Your task to perform on an android device: turn notification dots off Image 0: 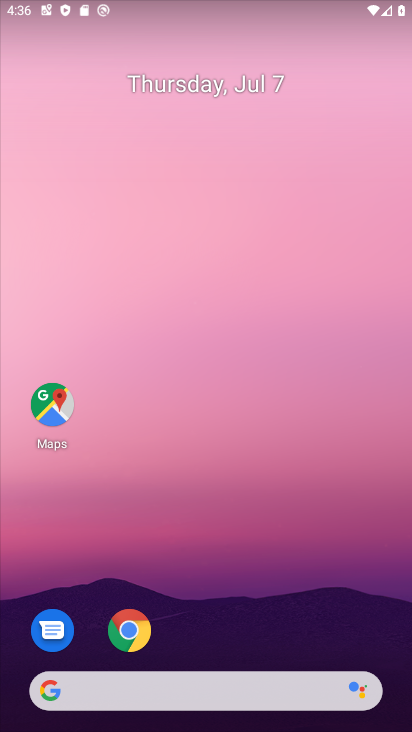
Step 0: drag from (188, 12) to (181, 562)
Your task to perform on an android device: turn notification dots off Image 1: 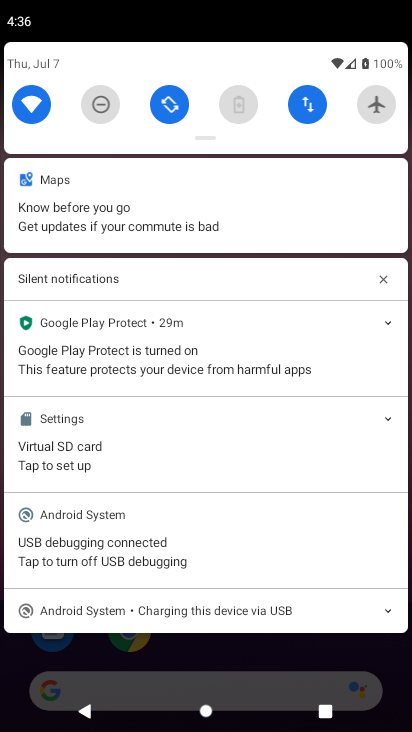
Step 1: drag from (212, 59) to (262, 602)
Your task to perform on an android device: turn notification dots off Image 2: 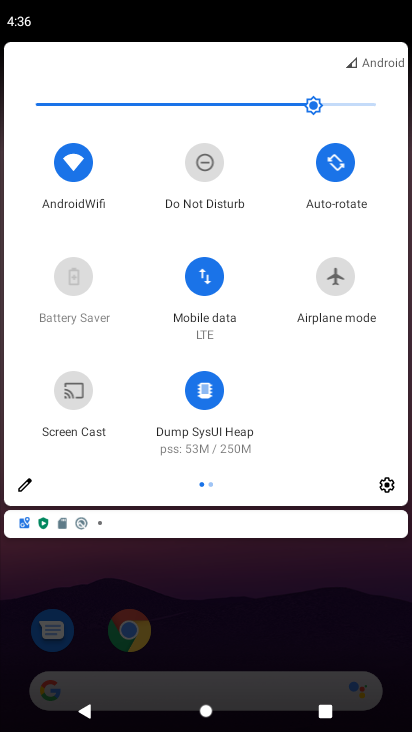
Step 2: click (397, 481)
Your task to perform on an android device: turn notification dots off Image 3: 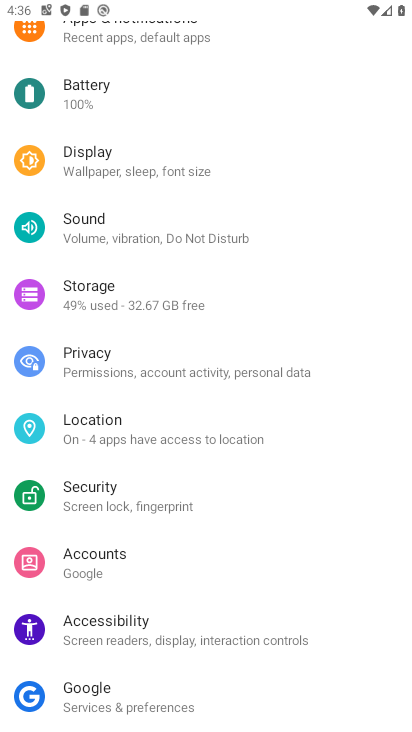
Step 3: drag from (236, 151) to (239, 534)
Your task to perform on an android device: turn notification dots off Image 4: 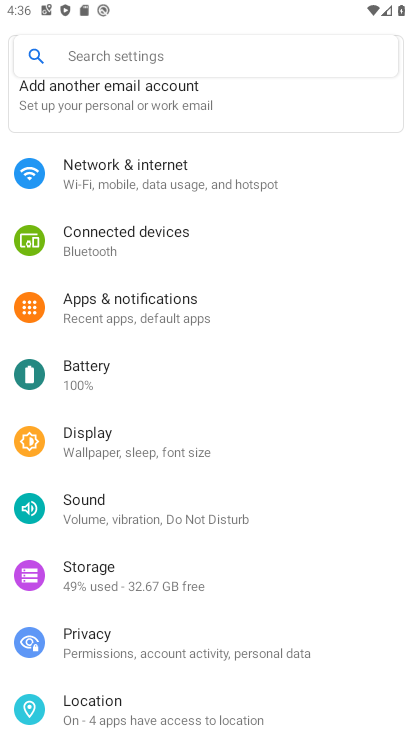
Step 4: click (170, 303)
Your task to perform on an android device: turn notification dots off Image 5: 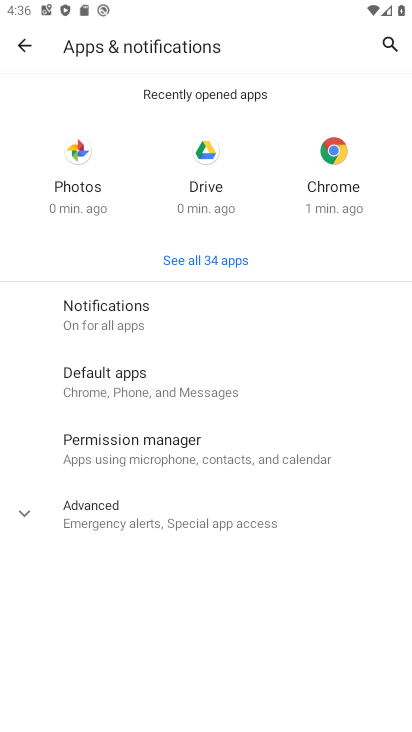
Step 5: click (146, 310)
Your task to perform on an android device: turn notification dots off Image 6: 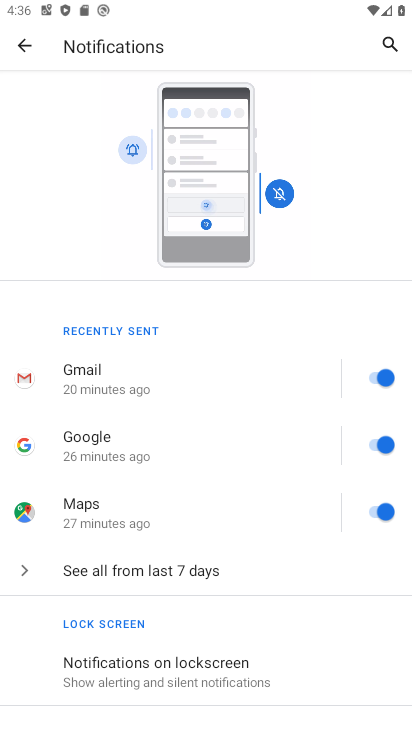
Step 6: drag from (257, 663) to (305, 170)
Your task to perform on an android device: turn notification dots off Image 7: 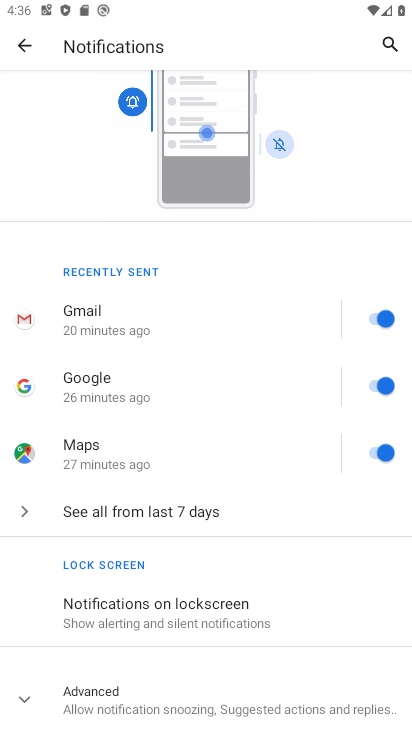
Step 7: click (123, 702)
Your task to perform on an android device: turn notification dots off Image 8: 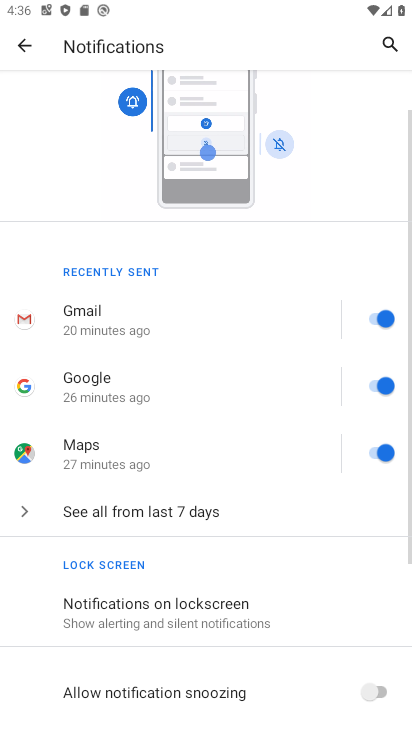
Step 8: drag from (188, 591) to (205, 240)
Your task to perform on an android device: turn notification dots off Image 9: 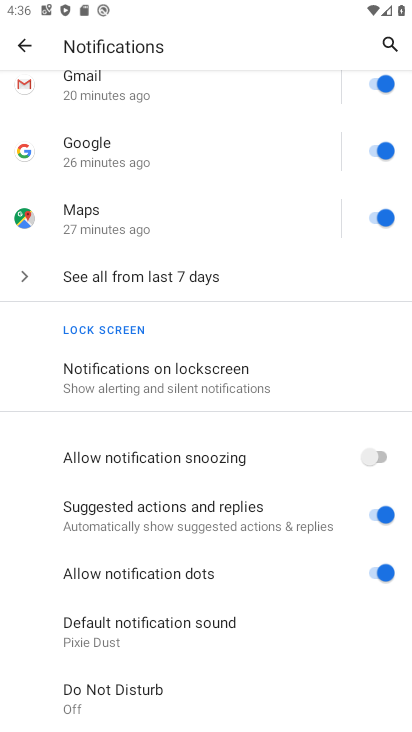
Step 9: click (384, 569)
Your task to perform on an android device: turn notification dots off Image 10: 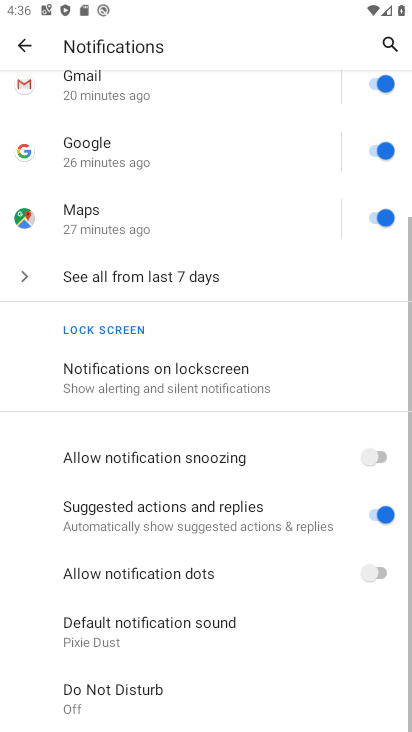
Step 10: task complete